Your task to perform on an android device: change text size in settings app Image 0: 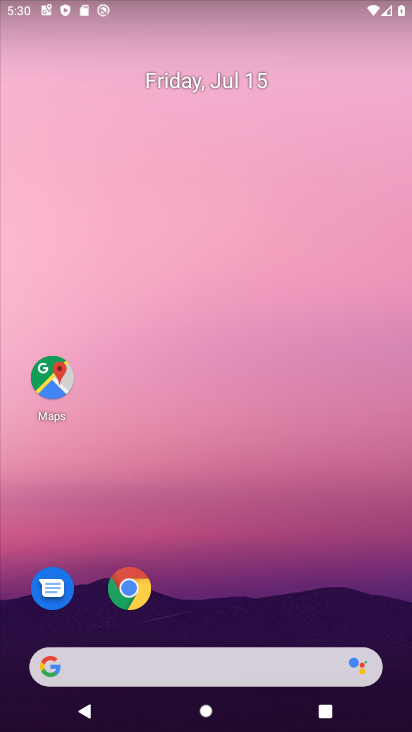
Step 0: drag from (312, 658) to (290, 87)
Your task to perform on an android device: change text size in settings app Image 1: 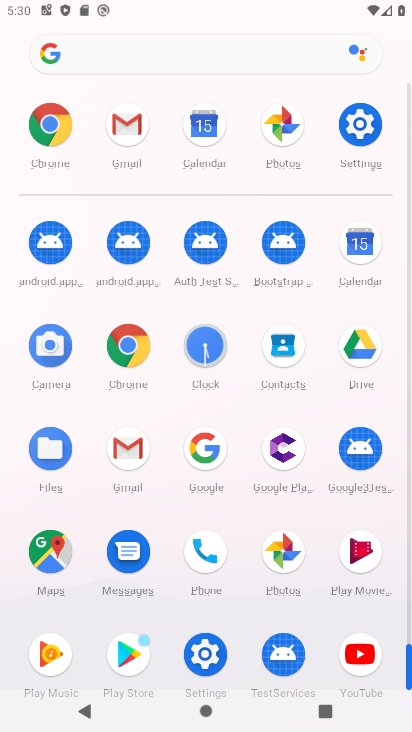
Step 1: click (361, 126)
Your task to perform on an android device: change text size in settings app Image 2: 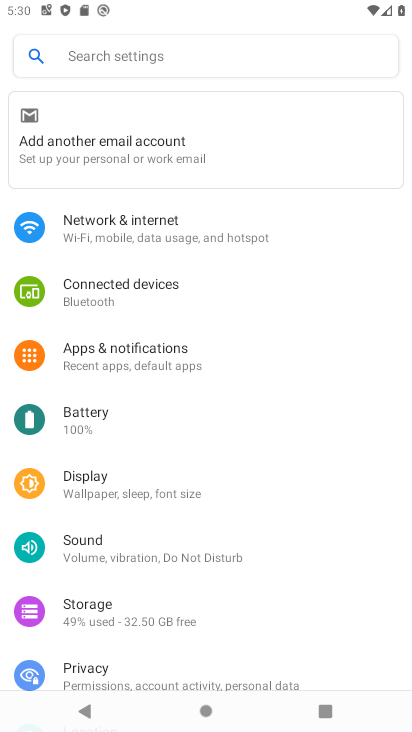
Step 2: drag from (133, 665) to (198, 139)
Your task to perform on an android device: change text size in settings app Image 3: 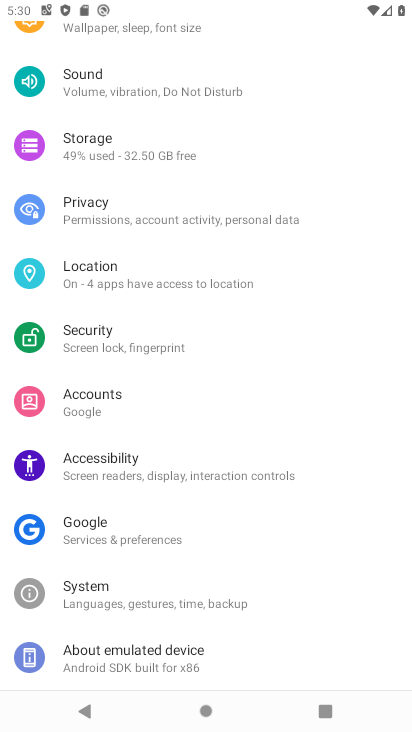
Step 3: click (123, 455)
Your task to perform on an android device: change text size in settings app Image 4: 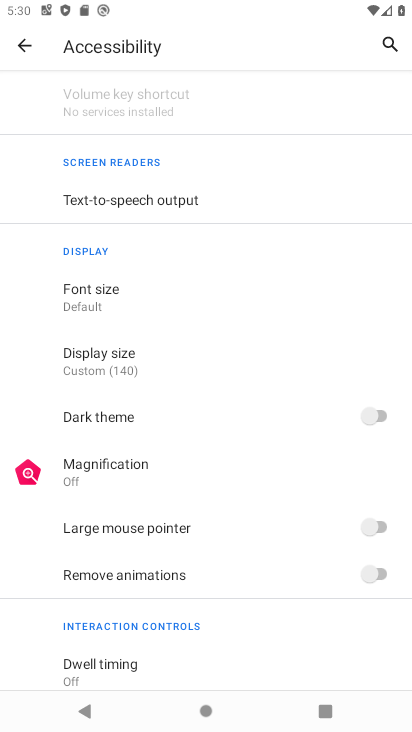
Step 4: click (123, 302)
Your task to perform on an android device: change text size in settings app Image 5: 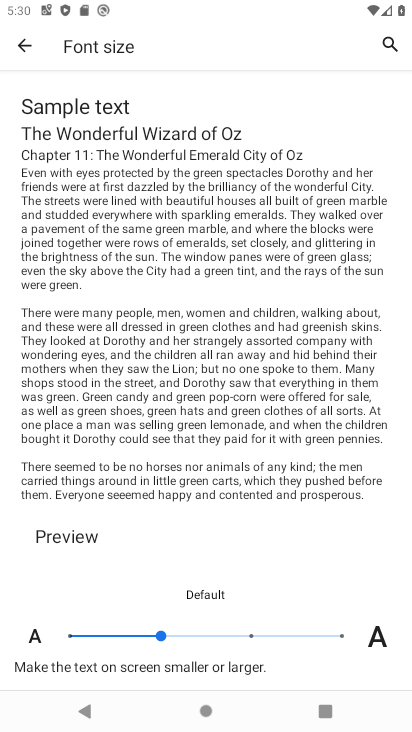
Step 5: click (250, 631)
Your task to perform on an android device: change text size in settings app Image 6: 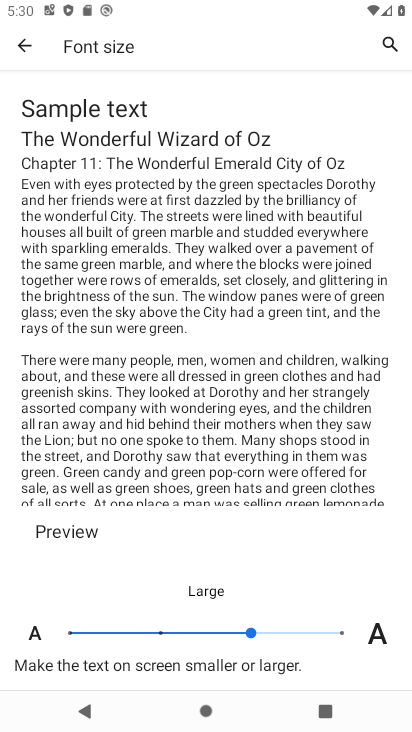
Step 6: task complete